Your task to perform on an android device: Is it going to rain this weekend? Image 0: 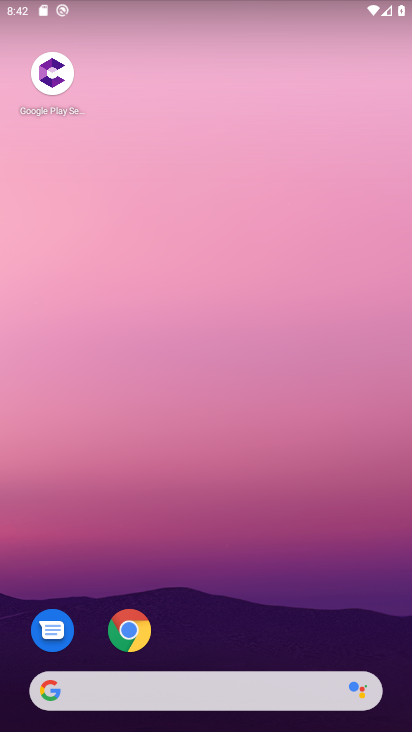
Step 0: click (224, 696)
Your task to perform on an android device: Is it going to rain this weekend? Image 1: 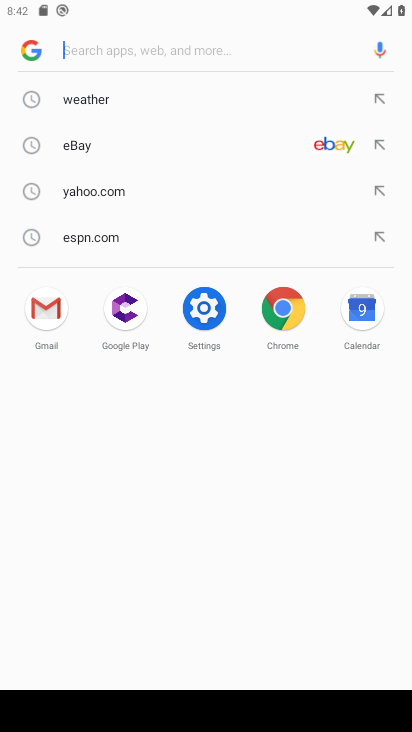
Step 1: click (106, 100)
Your task to perform on an android device: Is it going to rain this weekend? Image 2: 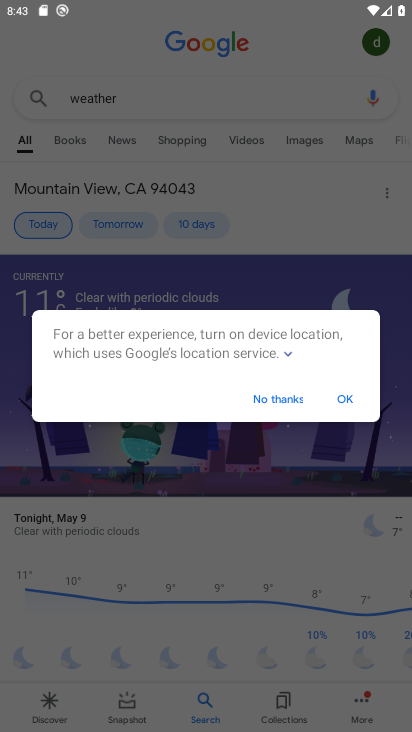
Step 2: click (369, 399)
Your task to perform on an android device: Is it going to rain this weekend? Image 3: 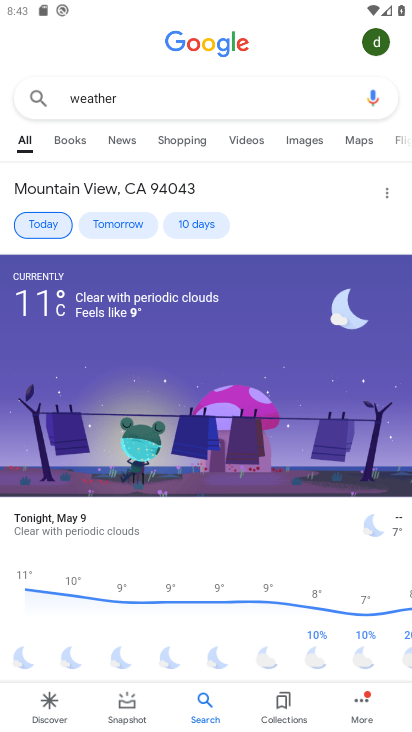
Step 3: task complete